Your task to perform on an android device: add a contact in the contacts app Image 0: 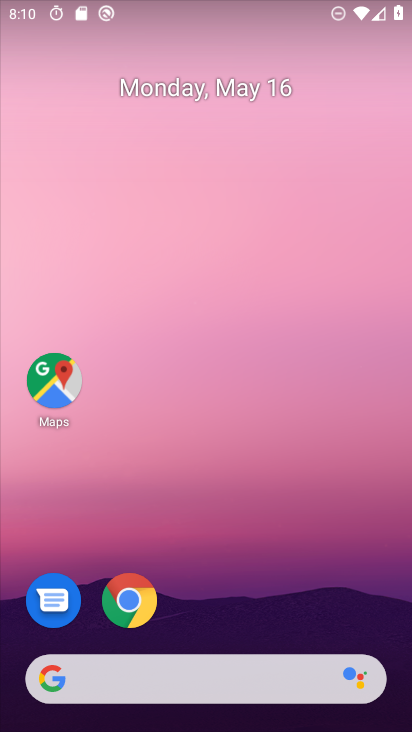
Step 0: drag from (140, 688) to (347, 136)
Your task to perform on an android device: add a contact in the contacts app Image 1: 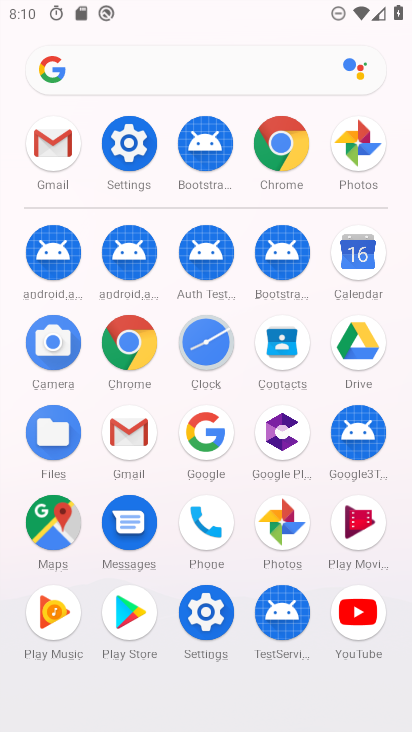
Step 1: click (289, 346)
Your task to perform on an android device: add a contact in the contacts app Image 2: 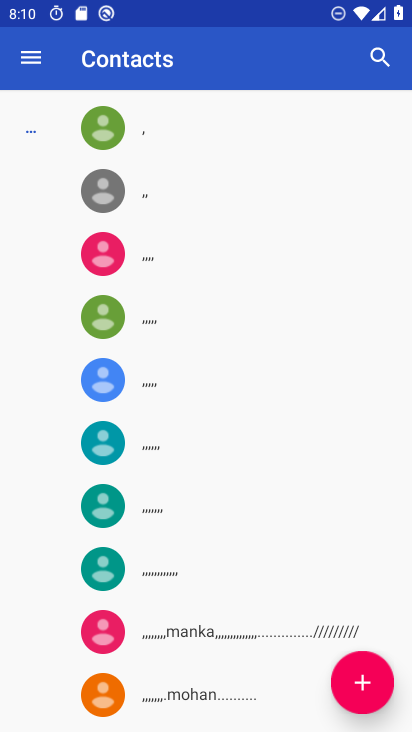
Step 2: click (369, 696)
Your task to perform on an android device: add a contact in the contacts app Image 3: 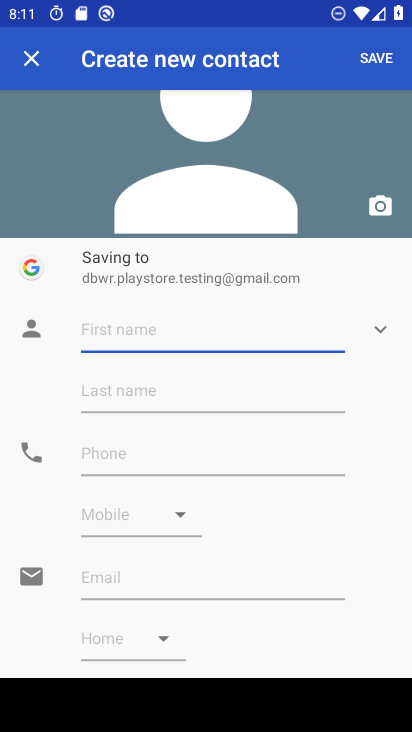
Step 3: type "bghhyyytt"
Your task to perform on an android device: add a contact in the contacts app Image 4: 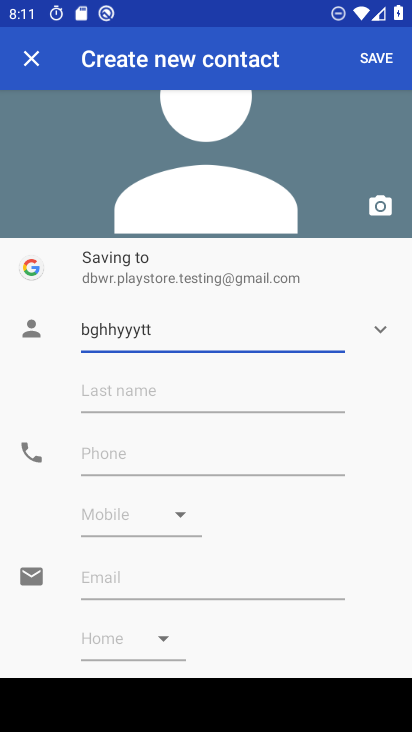
Step 4: click (130, 456)
Your task to perform on an android device: add a contact in the contacts app Image 5: 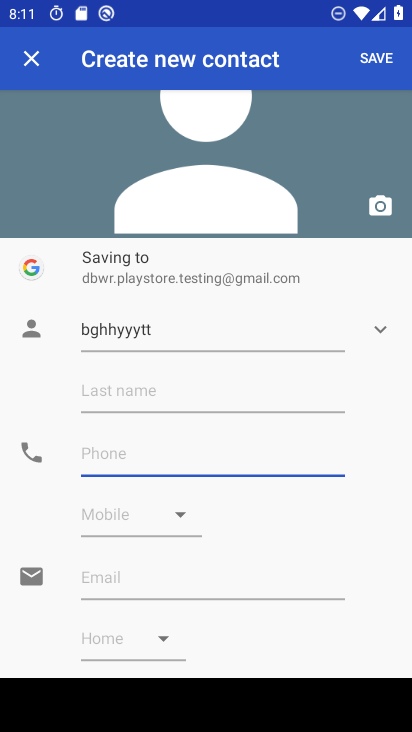
Step 5: type "777554366"
Your task to perform on an android device: add a contact in the contacts app Image 6: 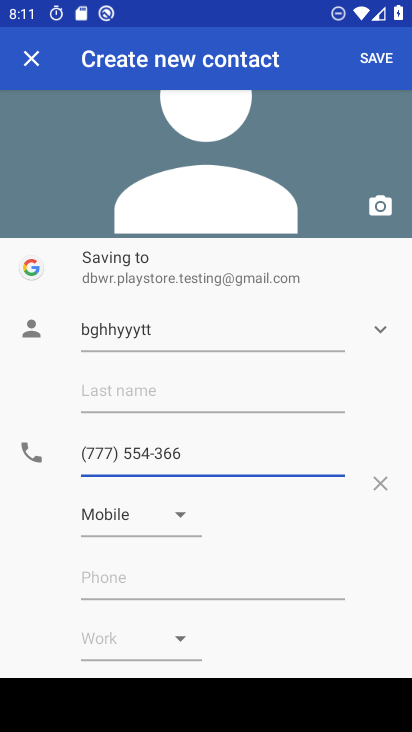
Step 6: click (381, 64)
Your task to perform on an android device: add a contact in the contacts app Image 7: 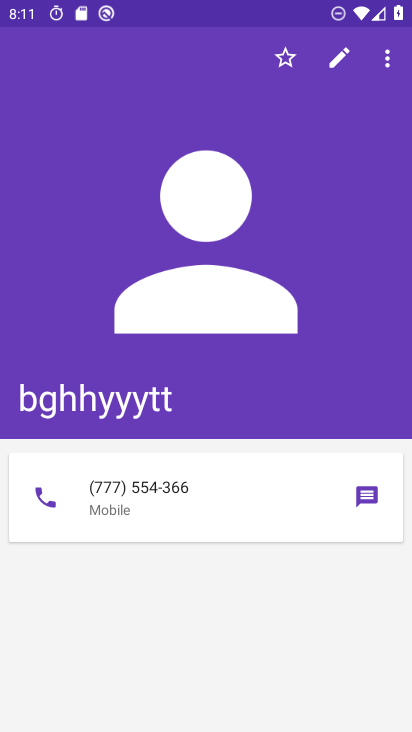
Step 7: task complete